Your task to perform on an android device: see tabs open on other devices in the chrome app Image 0: 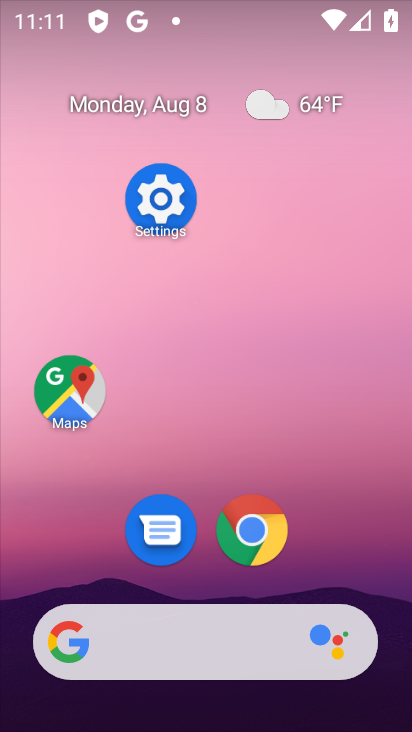
Step 0: drag from (301, 644) to (235, 335)
Your task to perform on an android device: see tabs open on other devices in the chrome app Image 1: 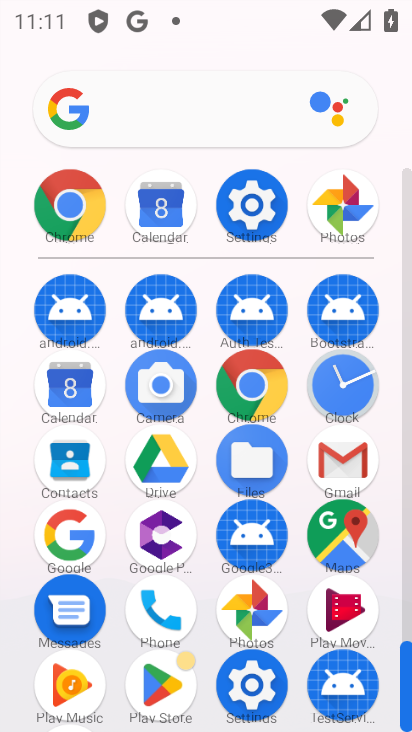
Step 1: click (72, 207)
Your task to perform on an android device: see tabs open on other devices in the chrome app Image 2: 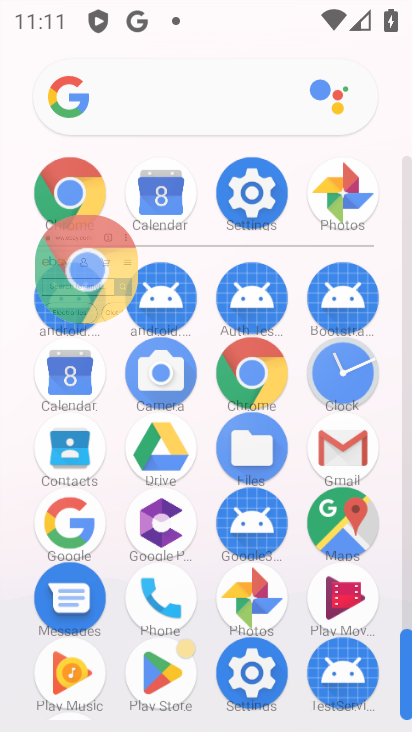
Step 2: click (77, 215)
Your task to perform on an android device: see tabs open on other devices in the chrome app Image 3: 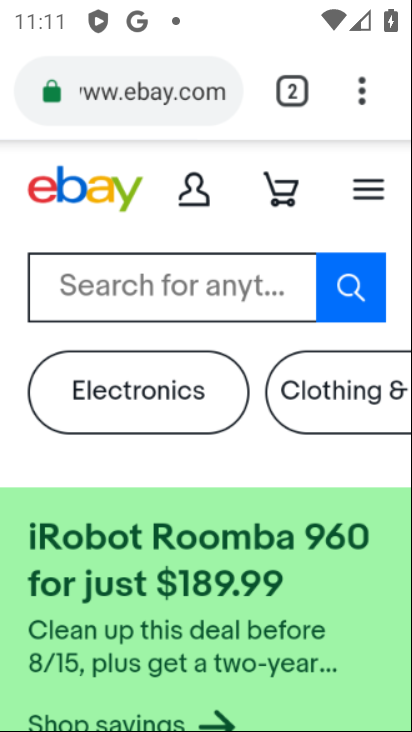
Step 3: click (78, 216)
Your task to perform on an android device: see tabs open on other devices in the chrome app Image 4: 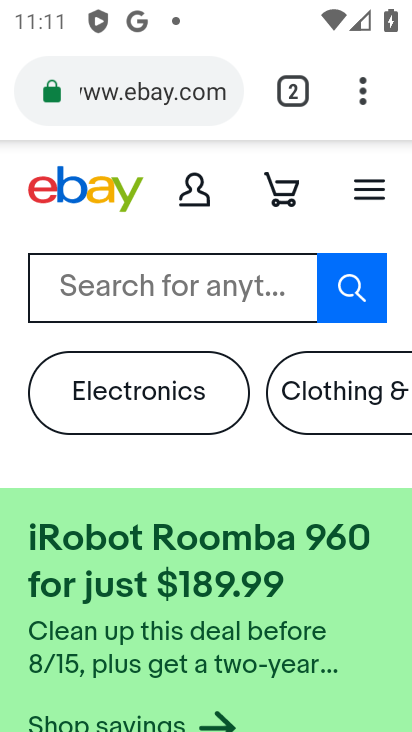
Step 4: drag from (355, 90) to (68, 419)
Your task to perform on an android device: see tabs open on other devices in the chrome app Image 5: 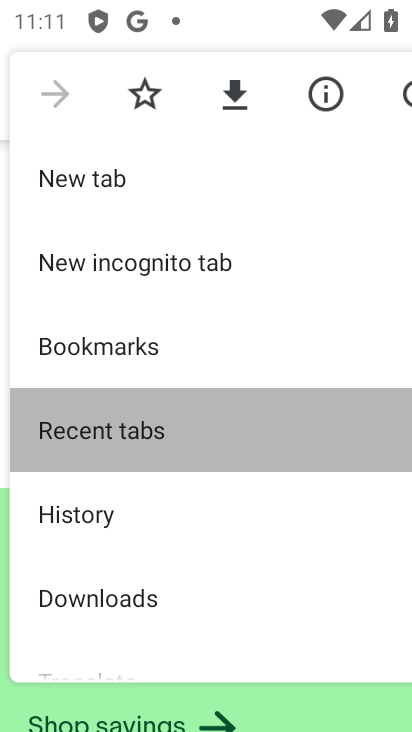
Step 5: click (68, 420)
Your task to perform on an android device: see tabs open on other devices in the chrome app Image 6: 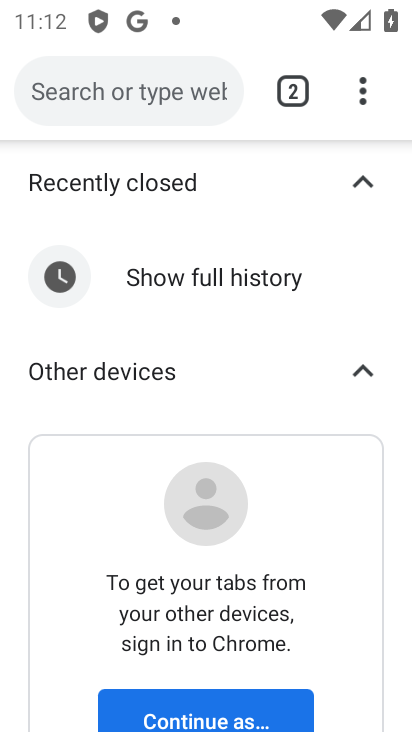
Step 6: press back button
Your task to perform on an android device: see tabs open on other devices in the chrome app Image 7: 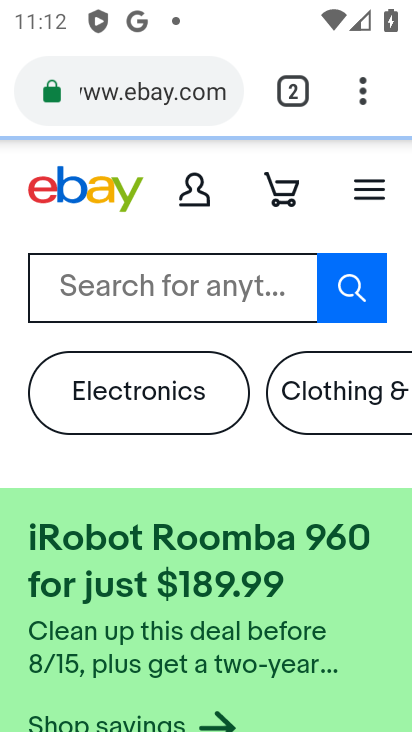
Step 7: press back button
Your task to perform on an android device: see tabs open on other devices in the chrome app Image 8: 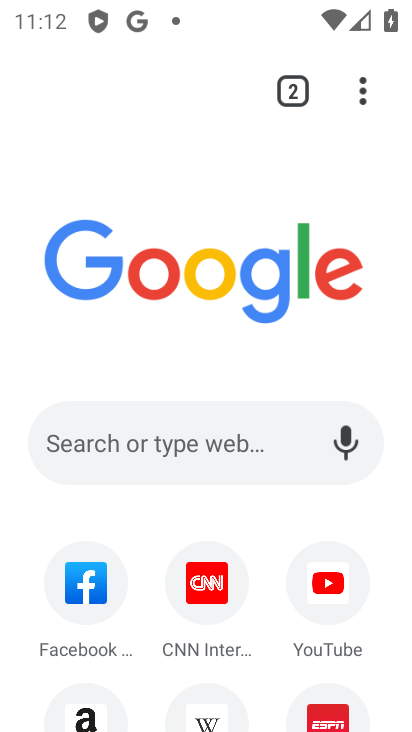
Step 8: press home button
Your task to perform on an android device: see tabs open on other devices in the chrome app Image 9: 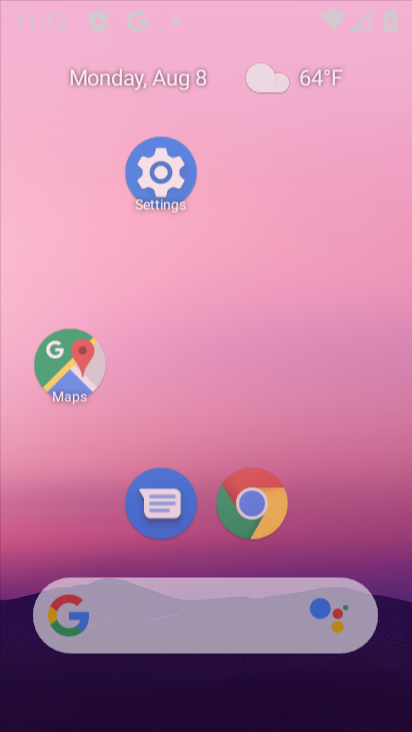
Step 9: drag from (254, 635) to (239, 95)
Your task to perform on an android device: see tabs open on other devices in the chrome app Image 10: 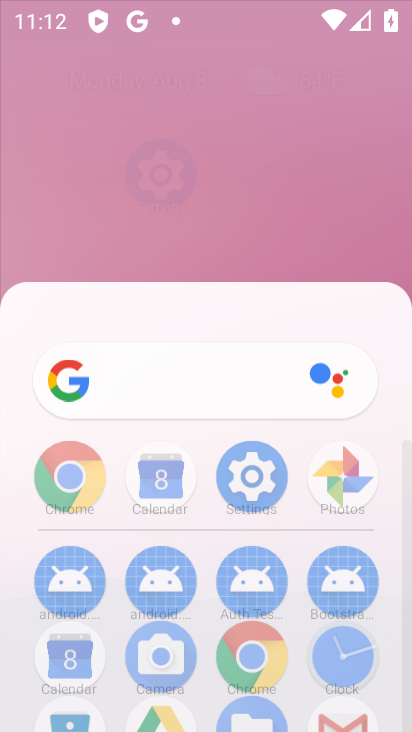
Step 10: drag from (242, 573) to (236, 242)
Your task to perform on an android device: see tabs open on other devices in the chrome app Image 11: 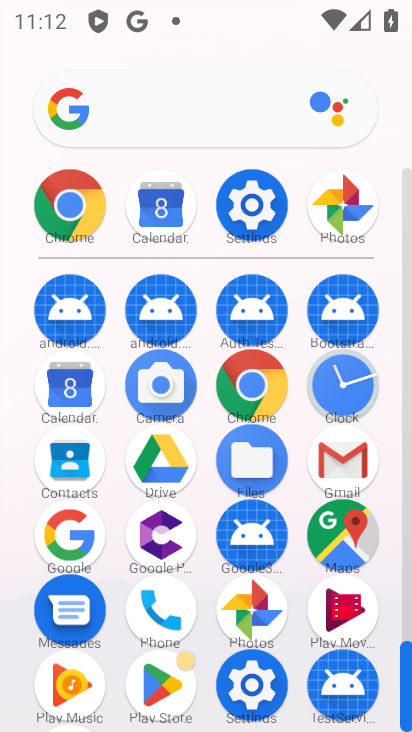
Step 11: click (255, 392)
Your task to perform on an android device: see tabs open on other devices in the chrome app Image 12: 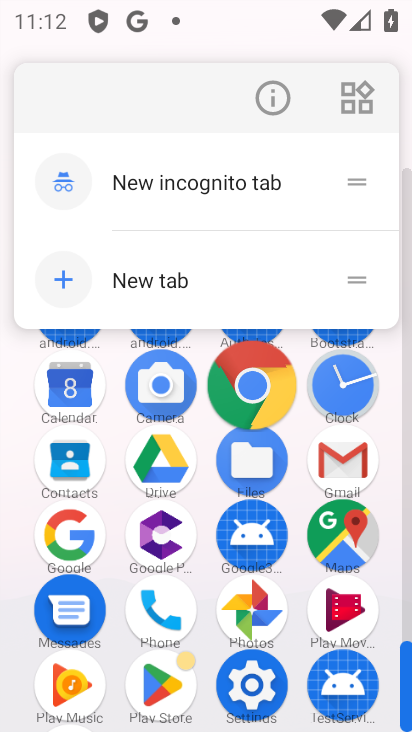
Step 12: click (256, 391)
Your task to perform on an android device: see tabs open on other devices in the chrome app Image 13: 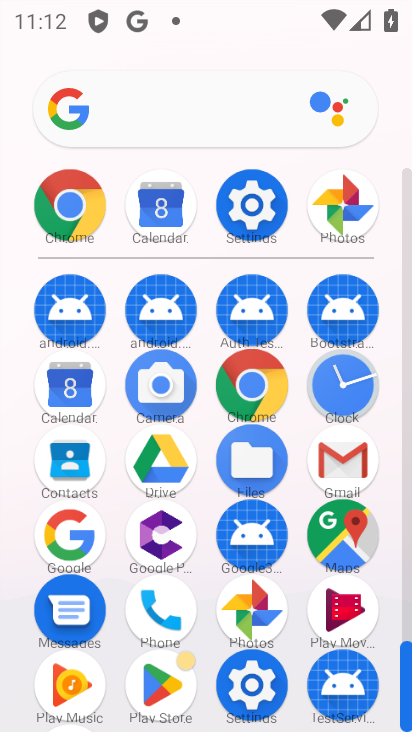
Step 13: click (255, 391)
Your task to perform on an android device: see tabs open on other devices in the chrome app Image 14: 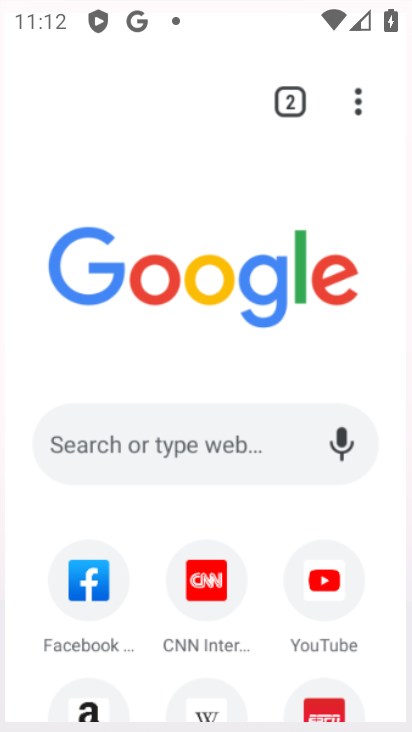
Step 14: click (255, 391)
Your task to perform on an android device: see tabs open on other devices in the chrome app Image 15: 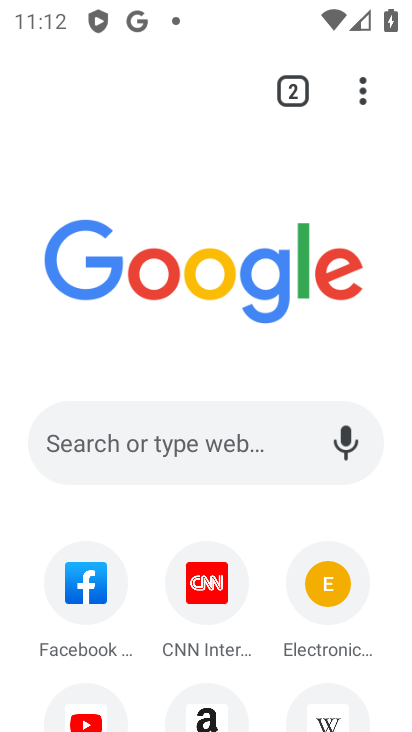
Step 15: drag from (352, 79) to (104, 438)
Your task to perform on an android device: see tabs open on other devices in the chrome app Image 16: 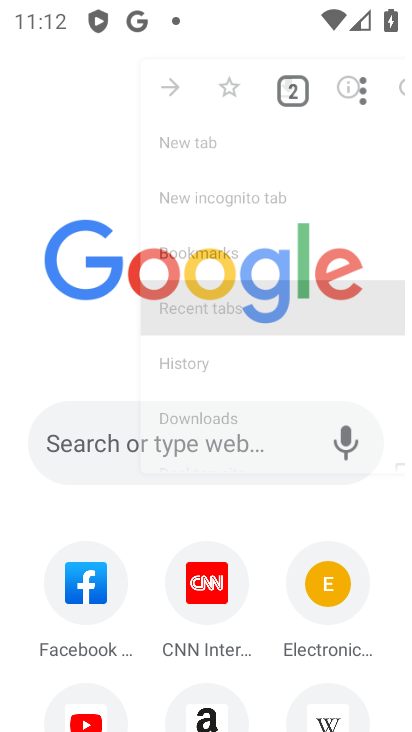
Step 16: click (102, 439)
Your task to perform on an android device: see tabs open on other devices in the chrome app Image 17: 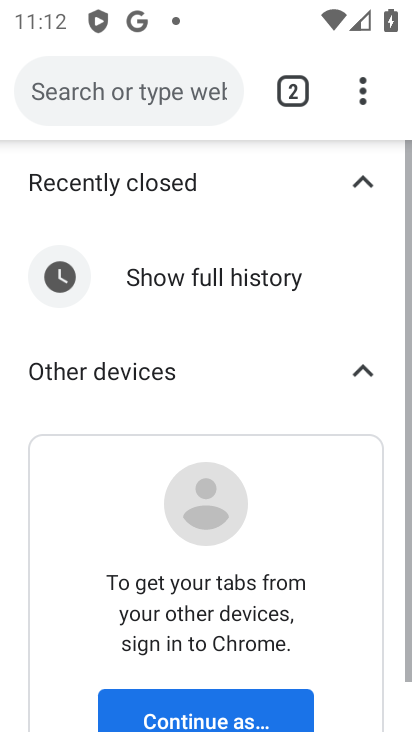
Step 17: task complete